Your task to perform on an android device: Open Yahoo.com Image 0: 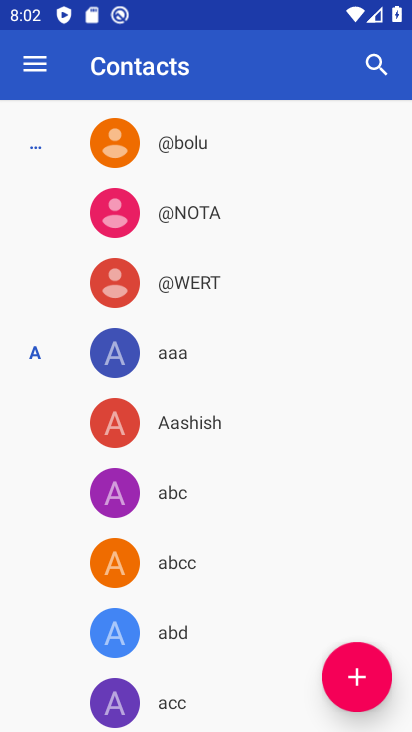
Step 0: press back button
Your task to perform on an android device: Open Yahoo.com Image 1: 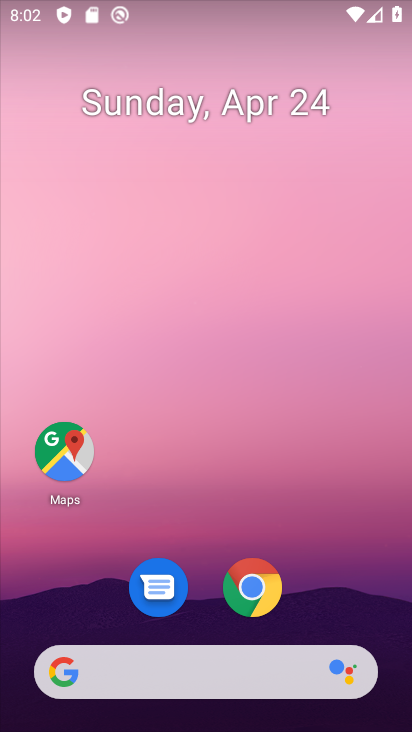
Step 1: click (245, 593)
Your task to perform on an android device: Open Yahoo.com Image 2: 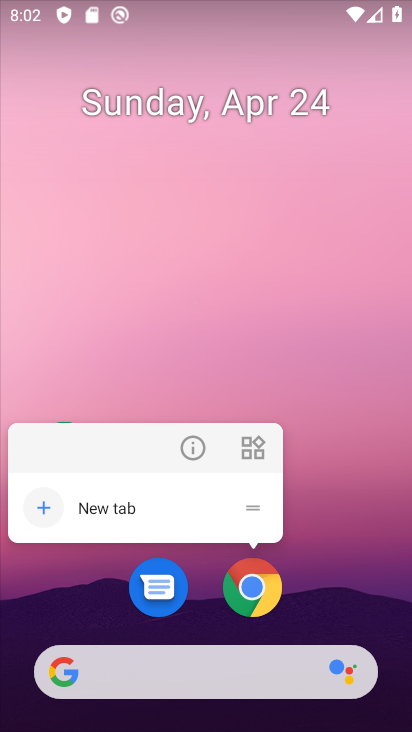
Step 2: click (250, 589)
Your task to perform on an android device: Open Yahoo.com Image 3: 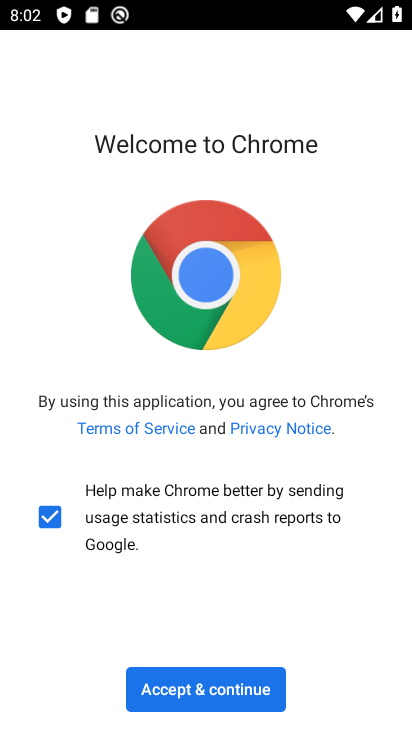
Step 3: click (184, 700)
Your task to perform on an android device: Open Yahoo.com Image 4: 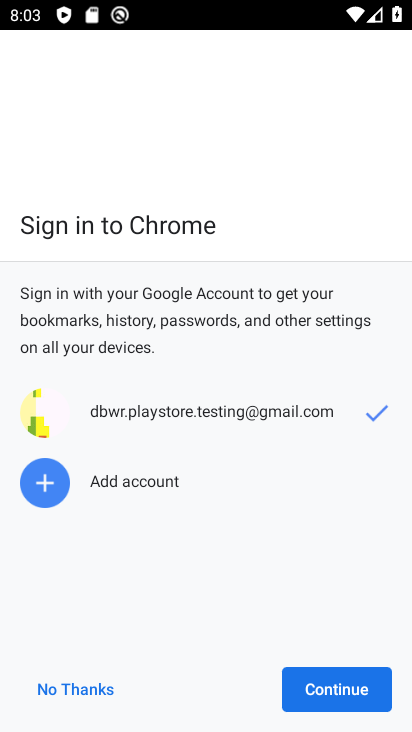
Step 4: click (319, 690)
Your task to perform on an android device: Open Yahoo.com Image 5: 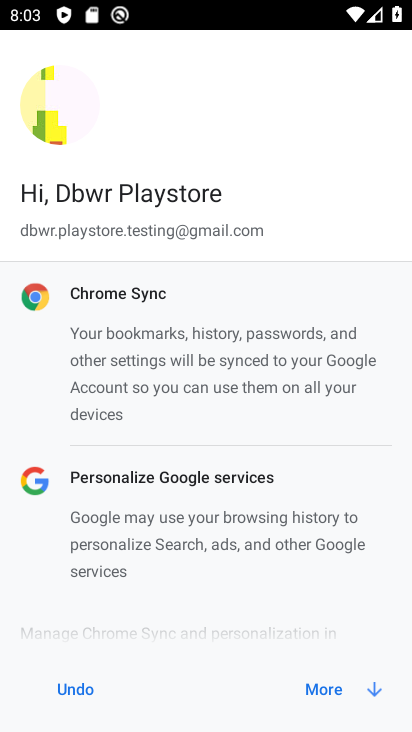
Step 5: click (336, 687)
Your task to perform on an android device: Open Yahoo.com Image 6: 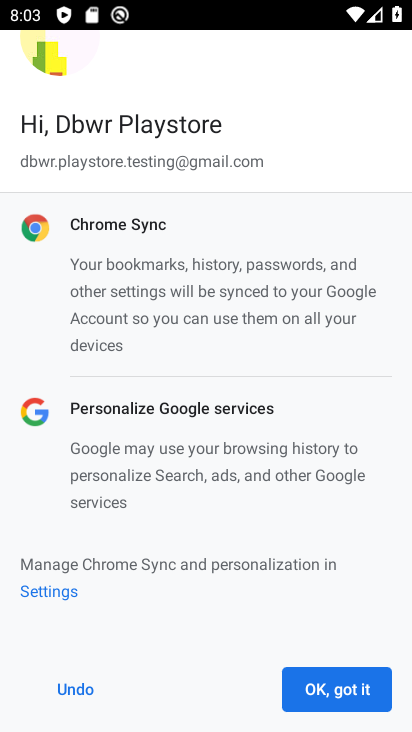
Step 6: click (336, 687)
Your task to perform on an android device: Open Yahoo.com Image 7: 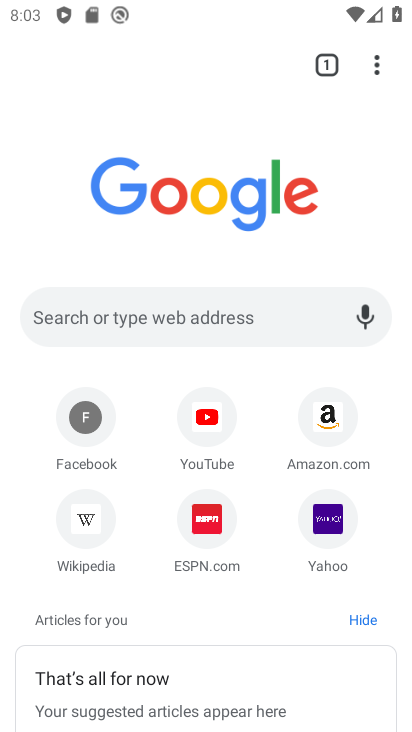
Step 7: click (325, 537)
Your task to perform on an android device: Open Yahoo.com Image 8: 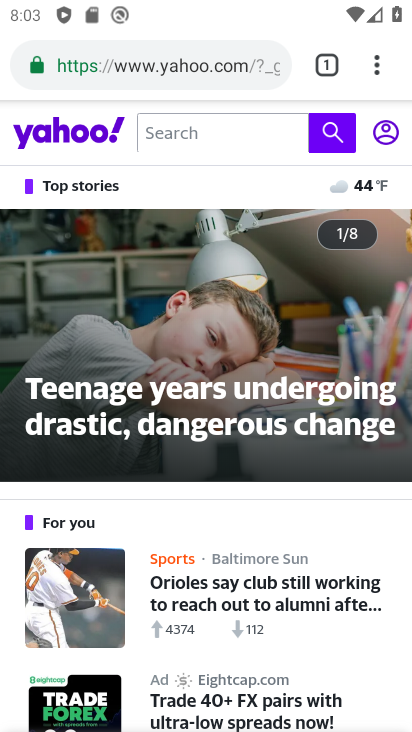
Step 8: task complete